Your task to perform on an android device: toggle airplane mode Image 0: 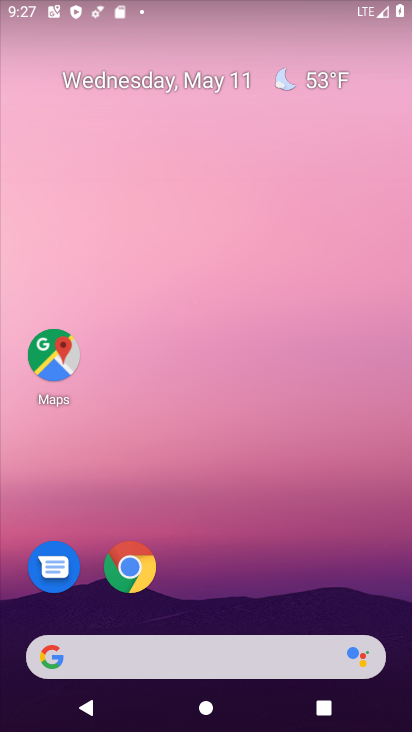
Step 0: drag from (250, 687) to (265, 19)
Your task to perform on an android device: toggle airplane mode Image 1: 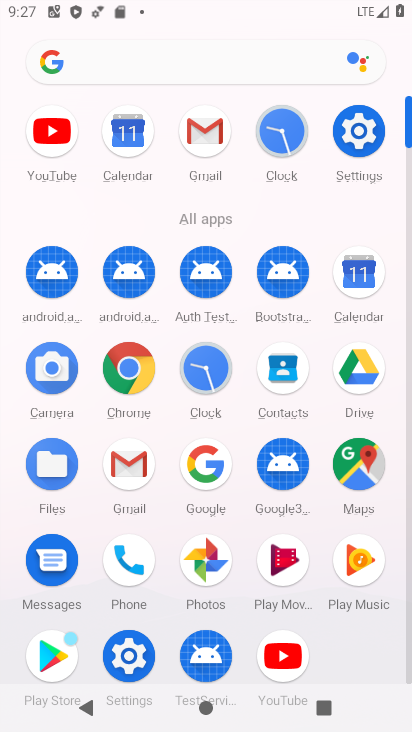
Step 1: click (353, 120)
Your task to perform on an android device: toggle airplane mode Image 2: 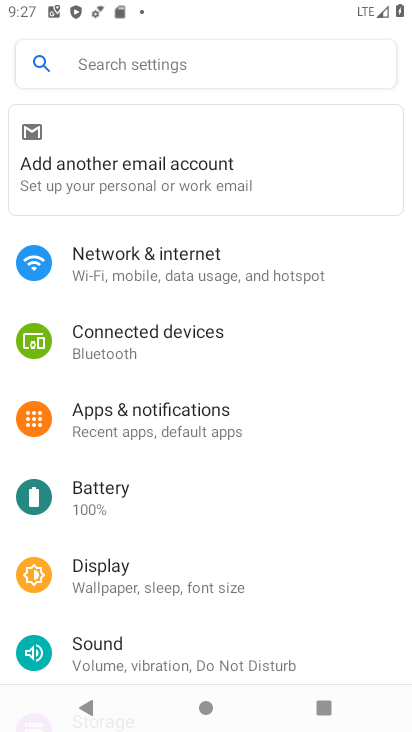
Step 2: click (219, 281)
Your task to perform on an android device: toggle airplane mode Image 3: 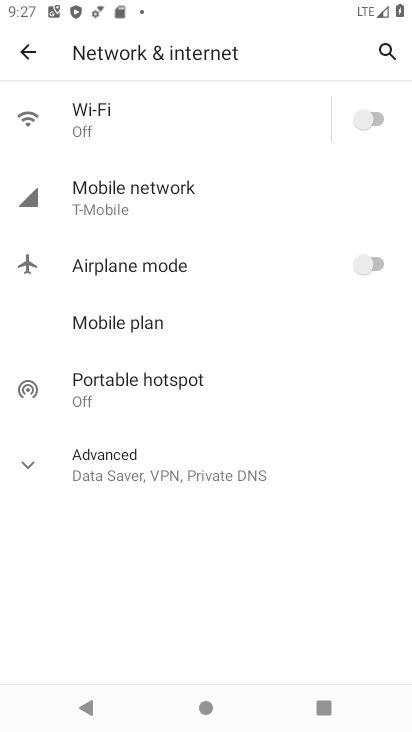
Step 3: click (378, 260)
Your task to perform on an android device: toggle airplane mode Image 4: 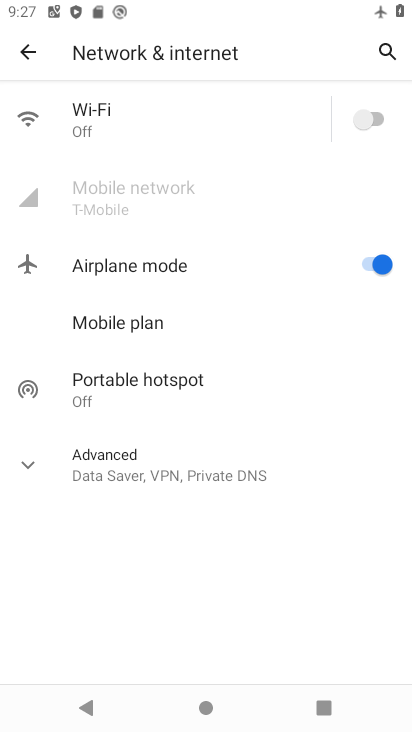
Step 4: task complete